Your task to perform on an android device: Go to eBay Image 0: 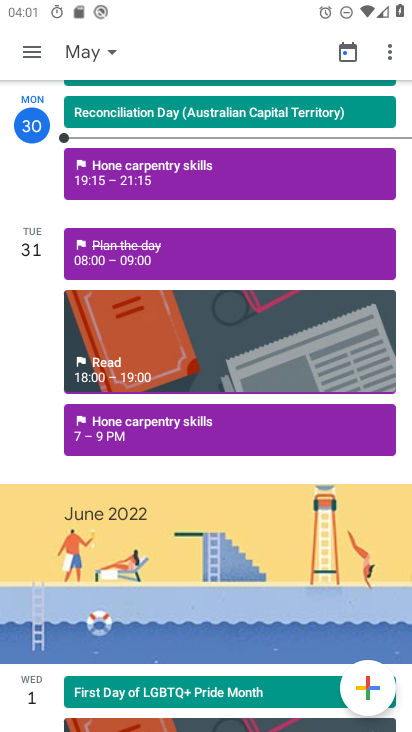
Step 0: press home button
Your task to perform on an android device: Go to eBay Image 1: 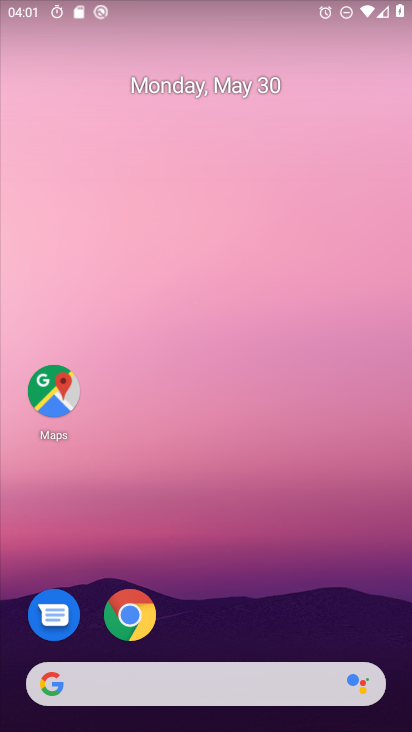
Step 1: click (131, 613)
Your task to perform on an android device: Go to eBay Image 2: 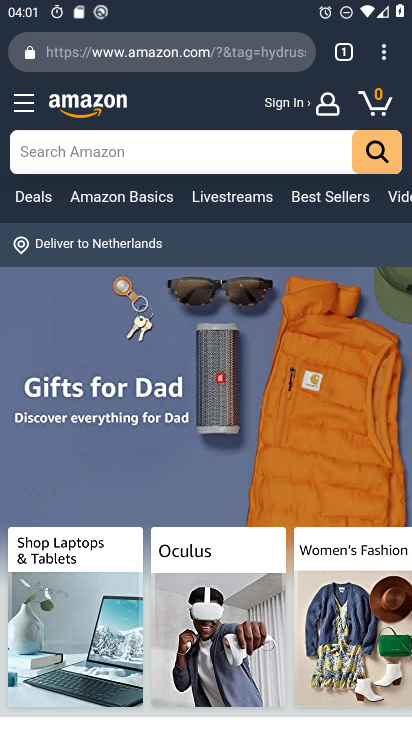
Step 2: click (229, 52)
Your task to perform on an android device: Go to eBay Image 3: 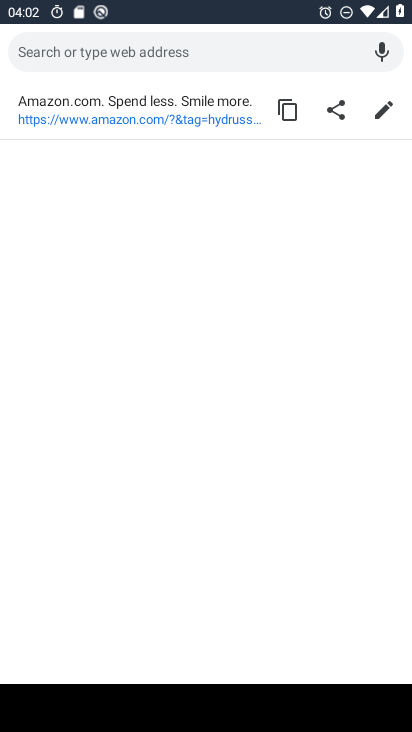
Step 3: type "eBay"
Your task to perform on an android device: Go to eBay Image 4: 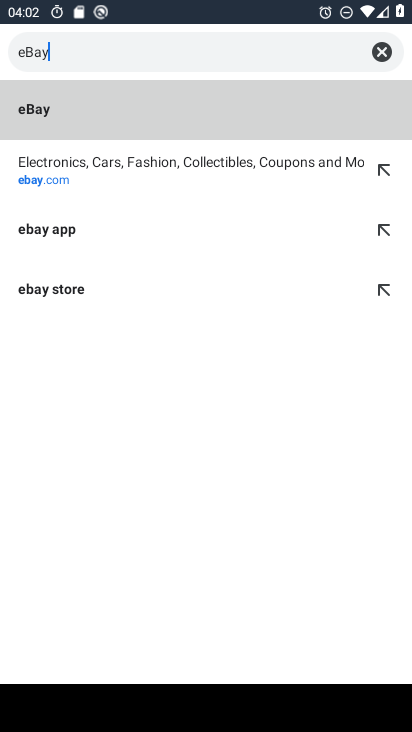
Step 4: click (48, 111)
Your task to perform on an android device: Go to eBay Image 5: 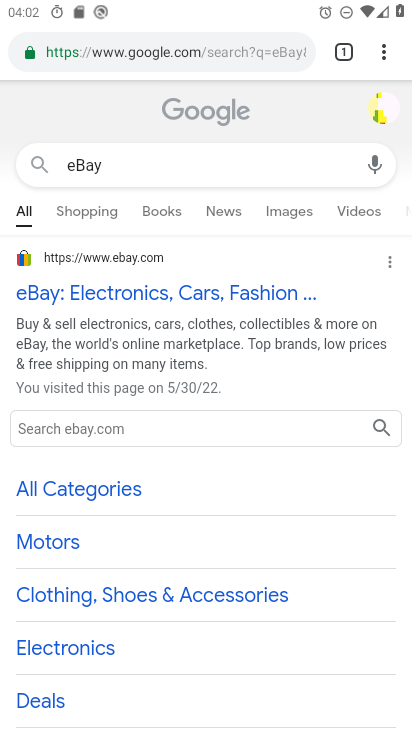
Step 5: click (139, 291)
Your task to perform on an android device: Go to eBay Image 6: 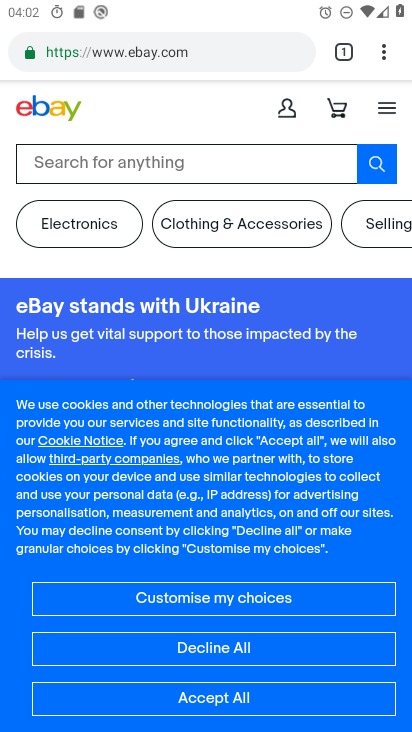
Step 6: task complete